Your task to perform on an android device: turn on bluetooth scan Image 0: 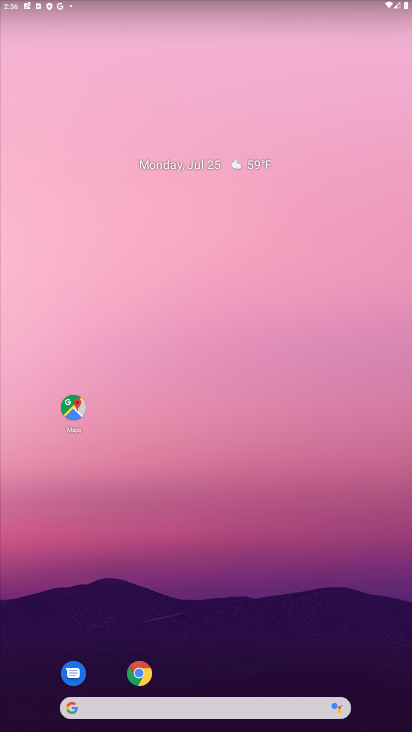
Step 0: drag from (162, 673) to (173, 271)
Your task to perform on an android device: turn on bluetooth scan Image 1: 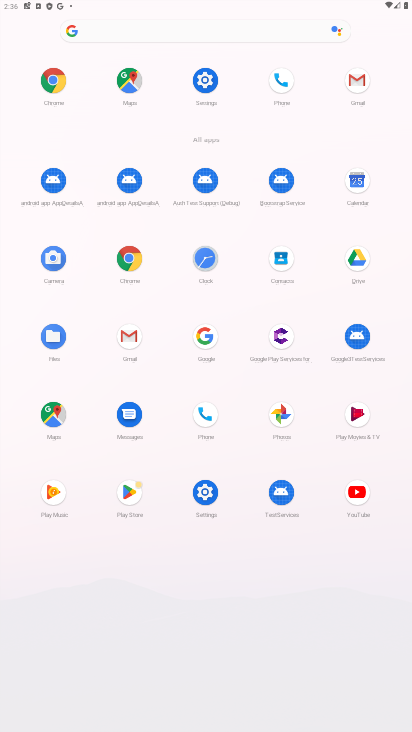
Step 1: click (197, 94)
Your task to perform on an android device: turn on bluetooth scan Image 2: 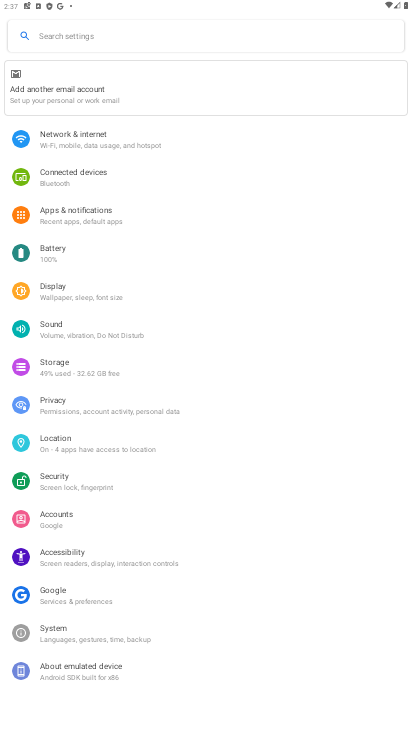
Step 2: click (74, 447)
Your task to perform on an android device: turn on bluetooth scan Image 3: 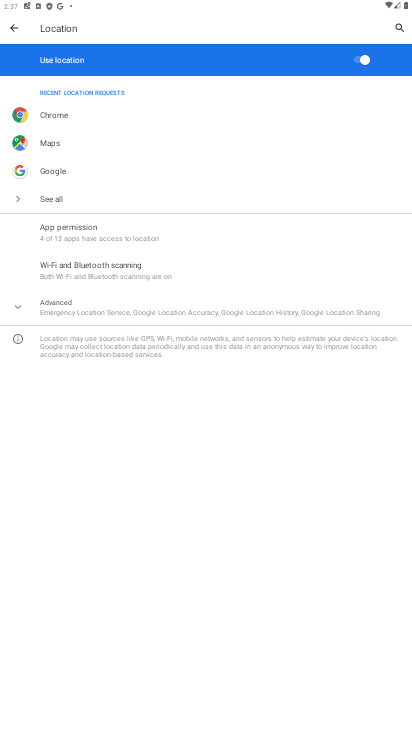
Step 3: click (218, 281)
Your task to perform on an android device: turn on bluetooth scan Image 4: 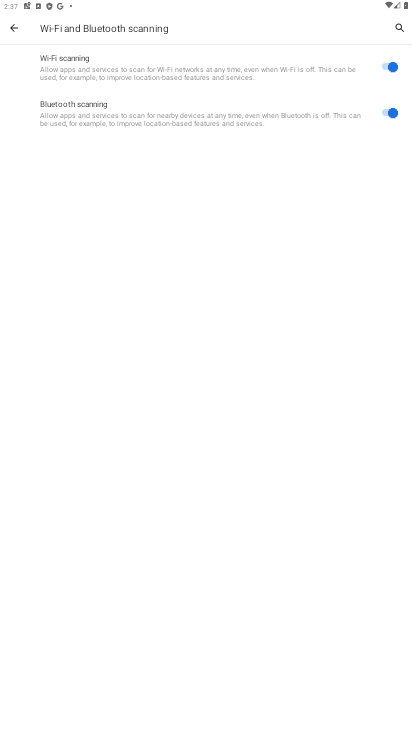
Step 4: task complete